Your task to perform on an android device: When is my next meeting? Image 0: 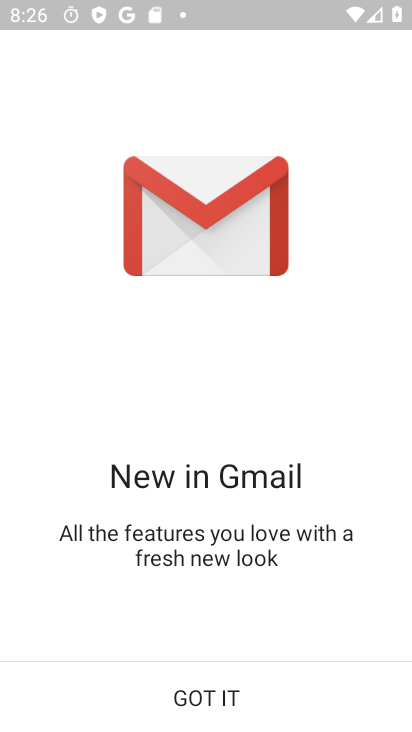
Step 0: click (211, 691)
Your task to perform on an android device: When is my next meeting? Image 1: 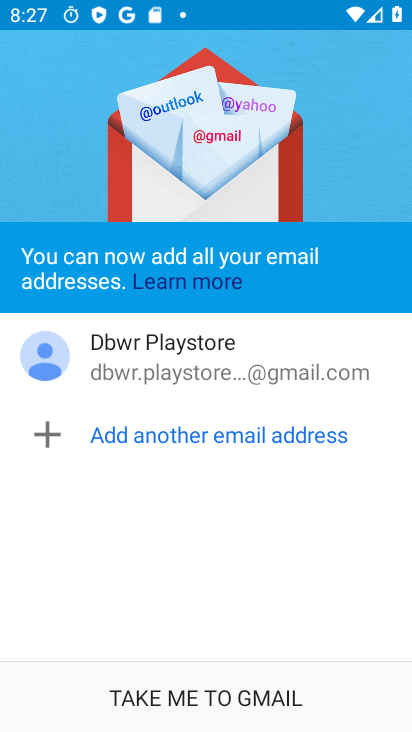
Step 1: press back button
Your task to perform on an android device: When is my next meeting? Image 2: 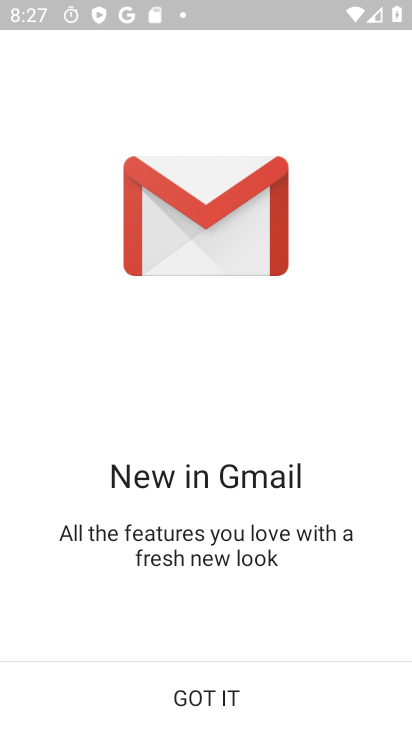
Step 2: click (219, 704)
Your task to perform on an android device: When is my next meeting? Image 3: 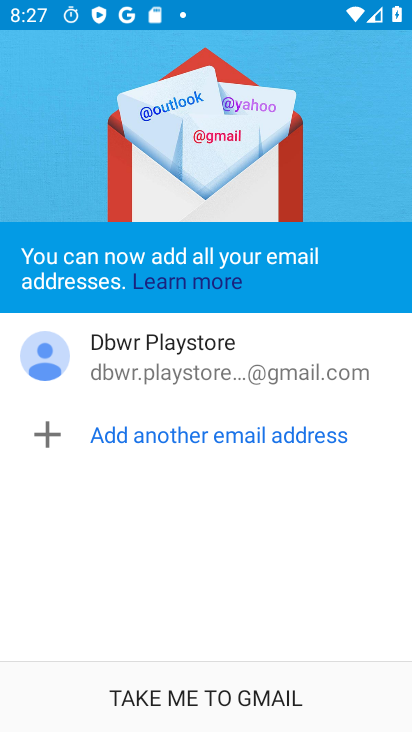
Step 3: click (220, 687)
Your task to perform on an android device: When is my next meeting? Image 4: 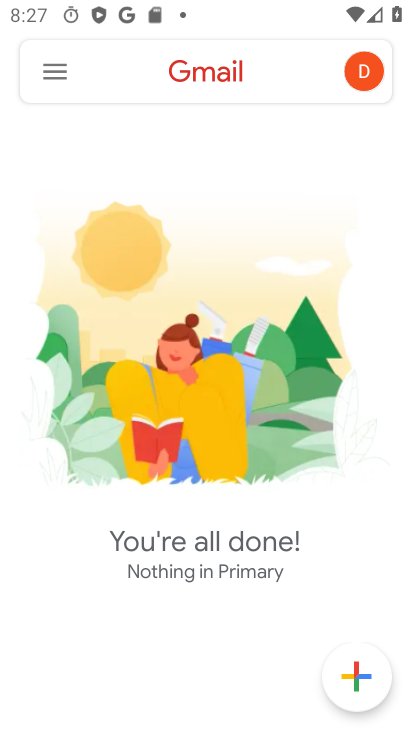
Step 4: press home button
Your task to perform on an android device: When is my next meeting? Image 5: 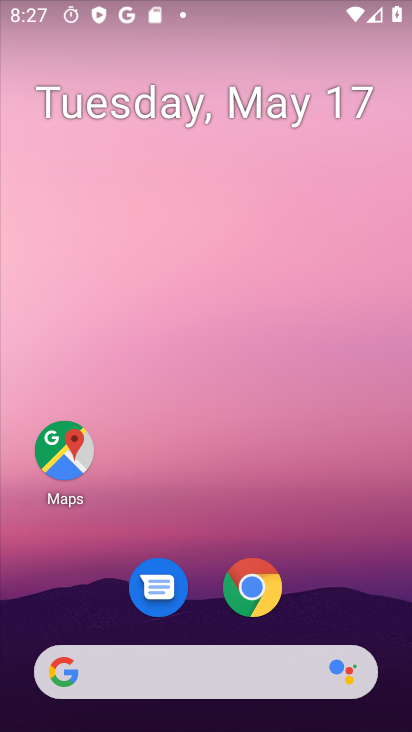
Step 5: drag from (309, 712) to (128, 172)
Your task to perform on an android device: When is my next meeting? Image 6: 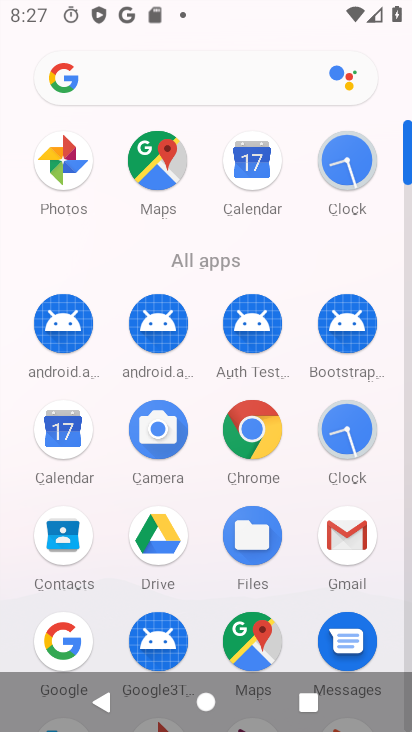
Step 6: click (48, 436)
Your task to perform on an android device: When is my next meeting? Image 7: 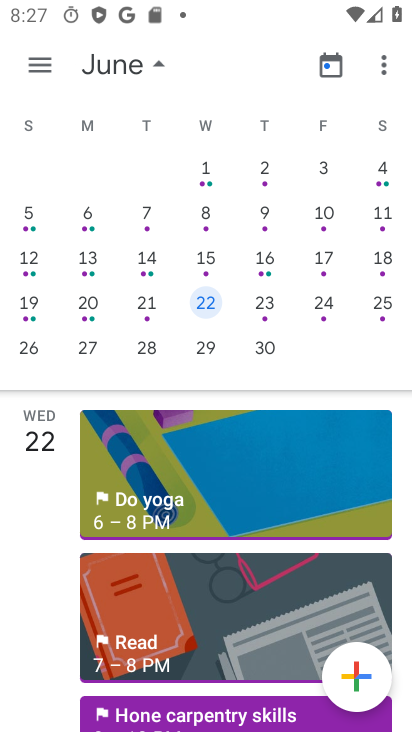
Step 7: drag from (149, 552) to (104, 185)
Your task to perform on an android device: When is my next meeting? Image 8: 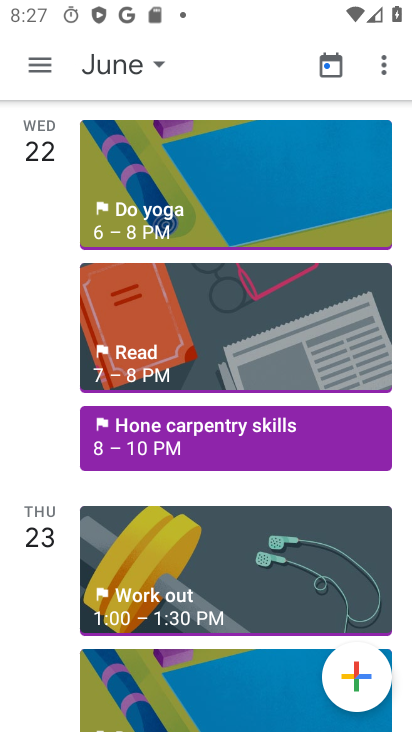
Step 8: drag from (289, 592) to (304, 271)
Your task to perform on an android device: When is my next meeting? Image 9: 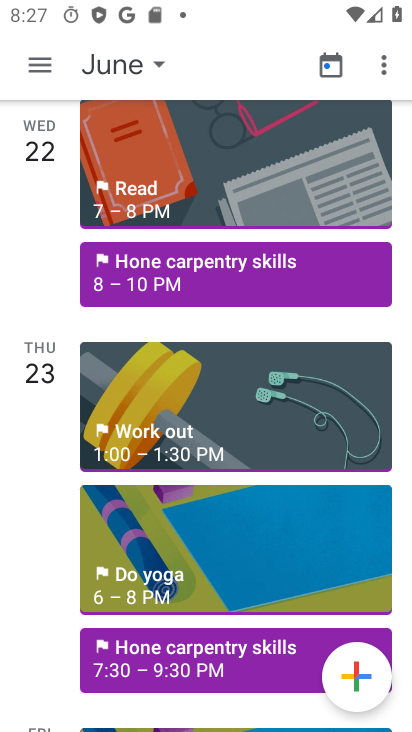
Step 9: drag from (273, 639) to (278, 285)
Your task to perform on an android device: When is my next meeting? Image 10: 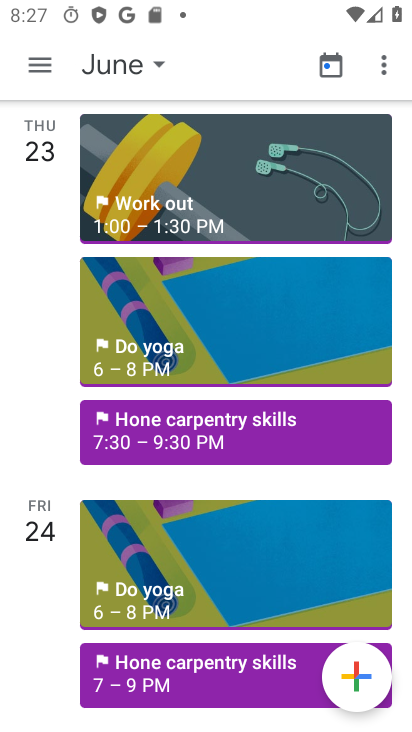
Step 10: drag from (250, 528) to (154, 223)
Your task to perform on an android device: When is my next meeting? Image 11: 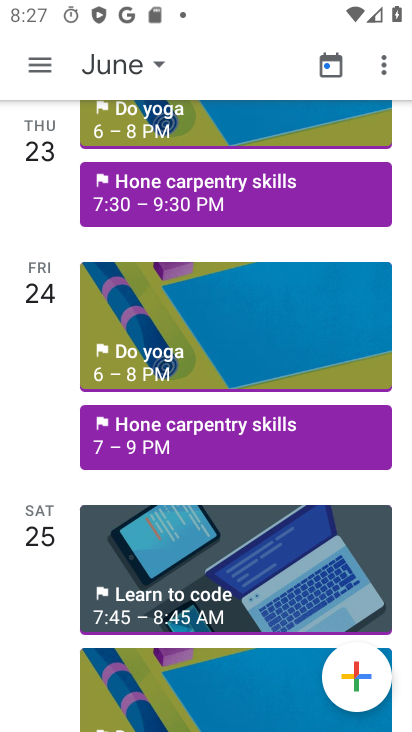
Step 11: drag from (192, 532) to (170, 194)
Your task to perform on an android device: When is my next meeting? Image 12: 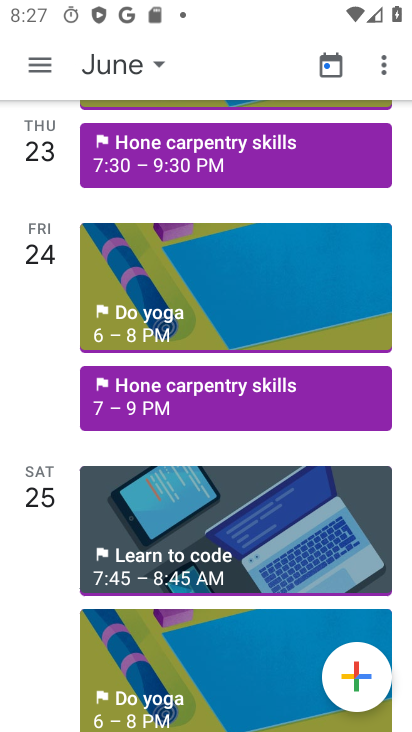
Step 12: drag from (201, 545) to (180, 234)
Your task to perform on an android device: When is my next meeting? Image 13: 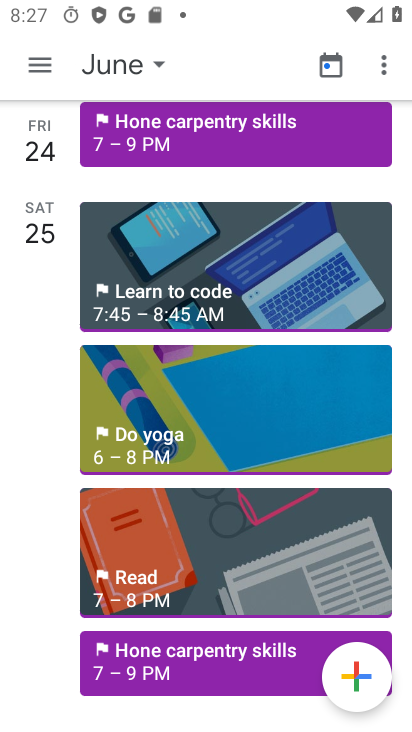
Step 13: drag from (218, 566) to (147, 251)
Your task to perform on an android device: When is my next meeting? Image 14: 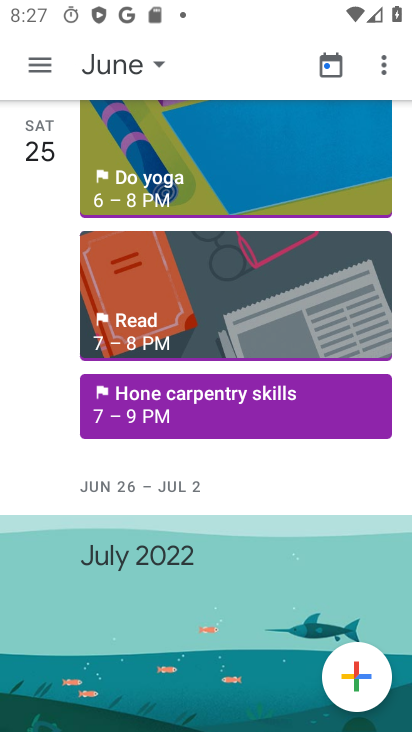
Step 14: drag from (209, 552) to (245, 194)
Your task to perform on an android device: When is my next meeting? Image 15: 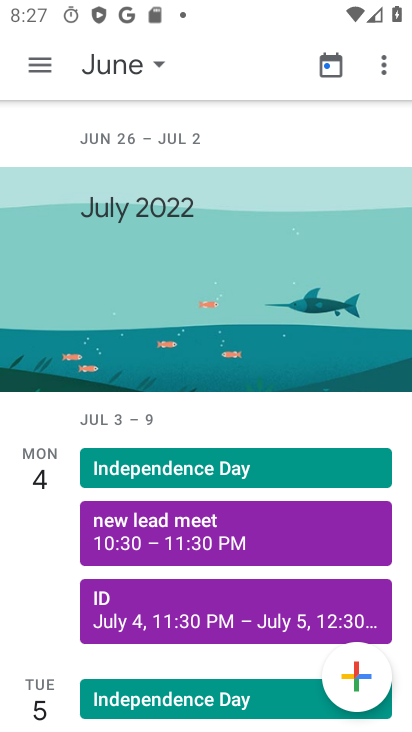
Step 15: drag from (286, 561) to (273, 185)
Your task to perform on an android device: When is my next meeting? Image 16: 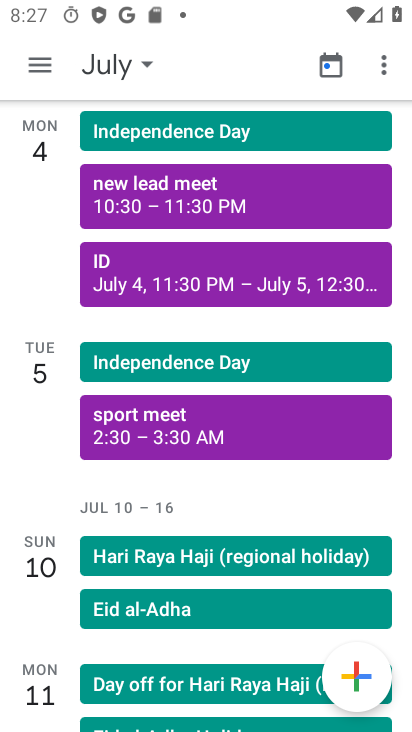
Step 16: drag from (197, 546) to (180, 226)
Your task to perform on an android device: When is my next meeting? Image 17: 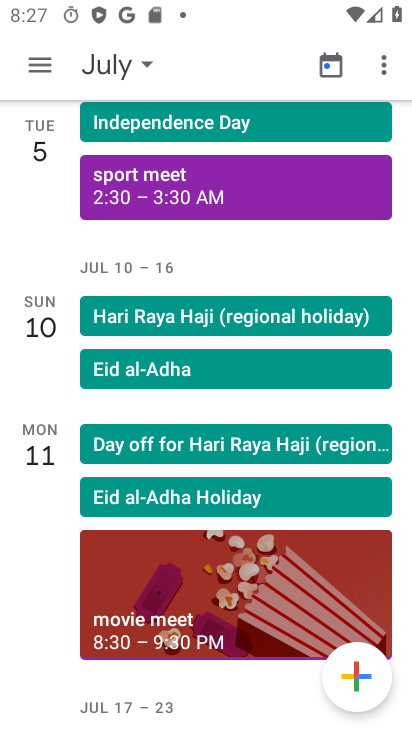
Step 17: click (250, 502)
Your task to perform on an android device: When is my next meeting? Image 18: 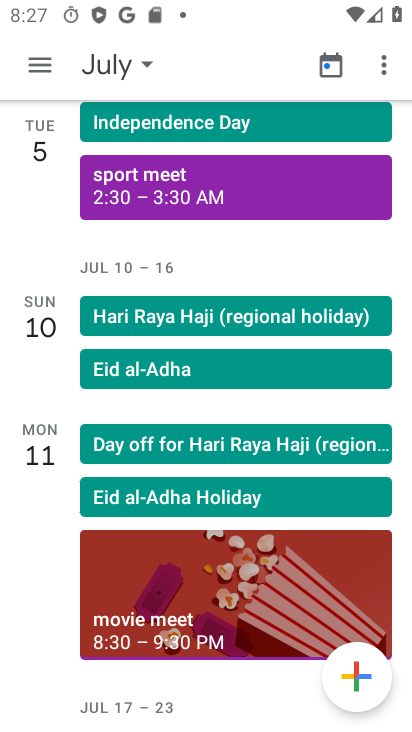
Step 18: drag from (203, 228) to (248, 512)
Your task to perform on an android device: When is my next meeting? Image 19: 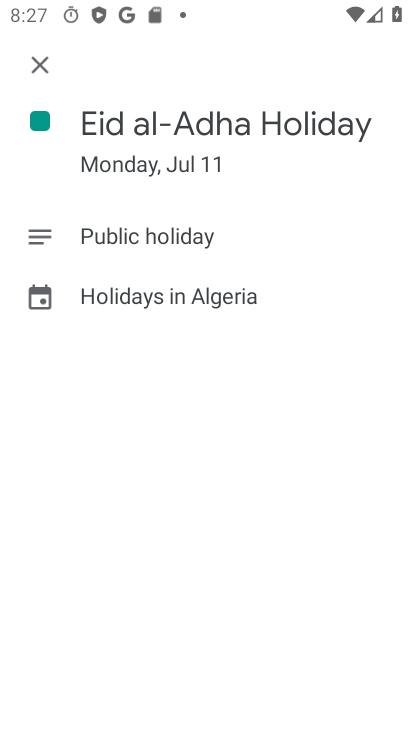
Step 19: drag from (171, 271) to (205, 428)
Your task to perform on an android device: When is my next meeting? Image 20: 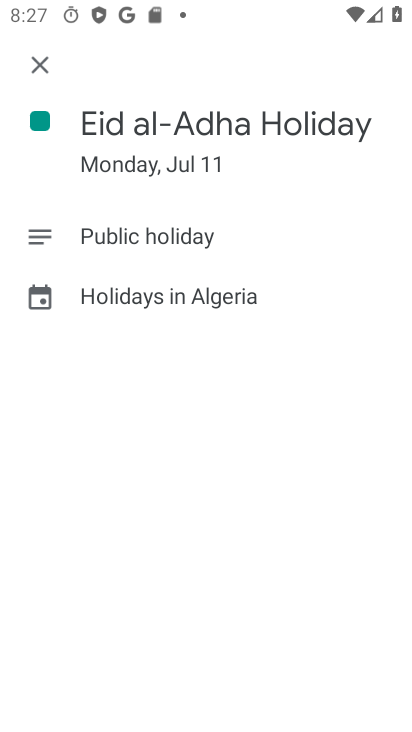
Step 20: click (40, 80)
Your task to perform on an android device: When is my next meeting? Image 21: 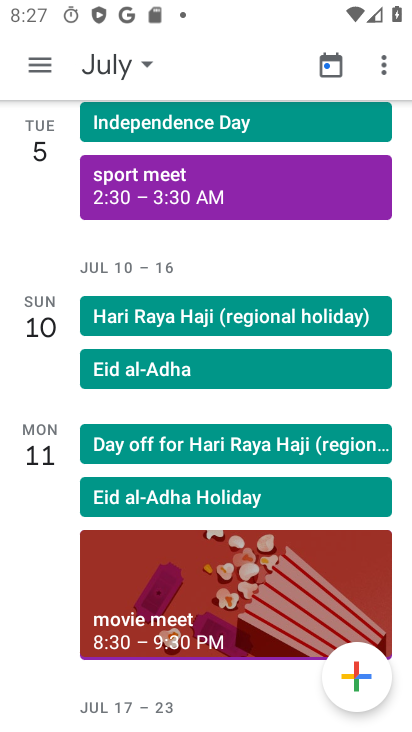
Step 21: task complete